Your task to perform on an android device: turn on data saver in the chrome app Image 0: 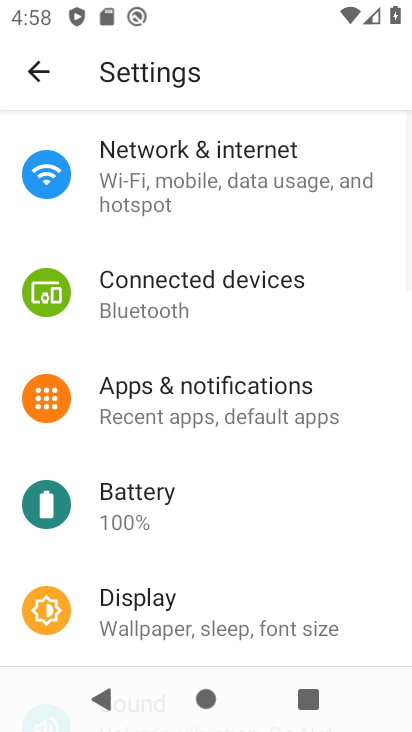
Step 0: press home button
Your task to perform on an android device: turn on data saver in the chrome app Image 1: 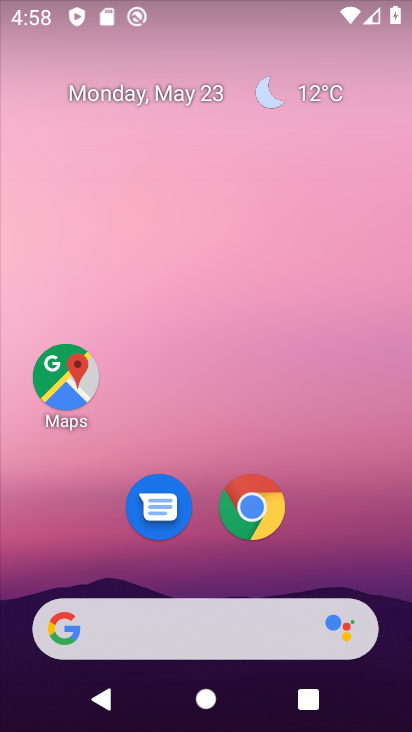
Step 1: drag from (136, 310) to (208, 167)
Your task to perform on an android device: turn on data saver in the chrome app Image 2: 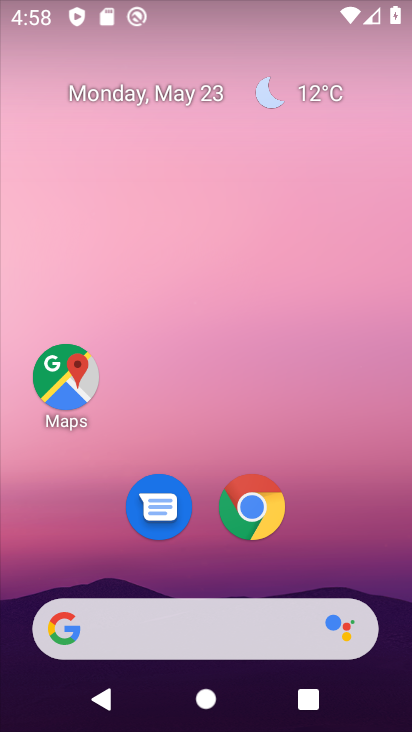
Step 2: click (251, 495)
Your task to perform on an android device: turn on data saver in the chrome app Image 3: 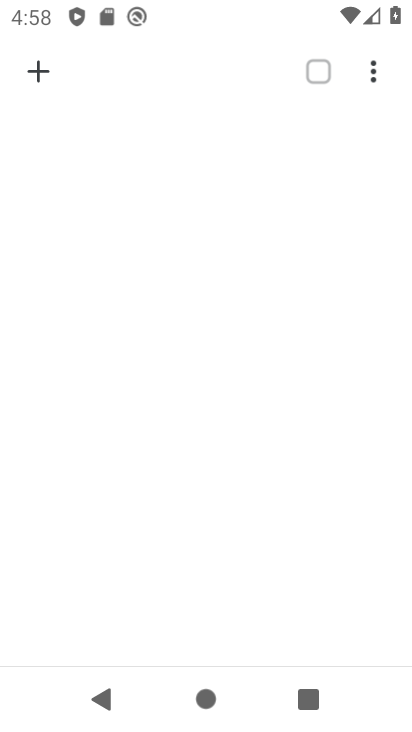
Step 3: click (371, 72)
Your task to perform on an android device: turn on data saver in the chrome app Image 4: 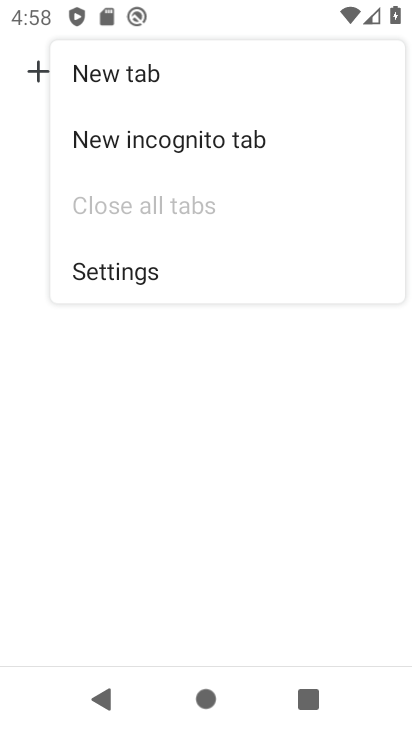
Step 4: press home button
Your task to perform on an android device: turn on data saver in the chrome app Image 5: 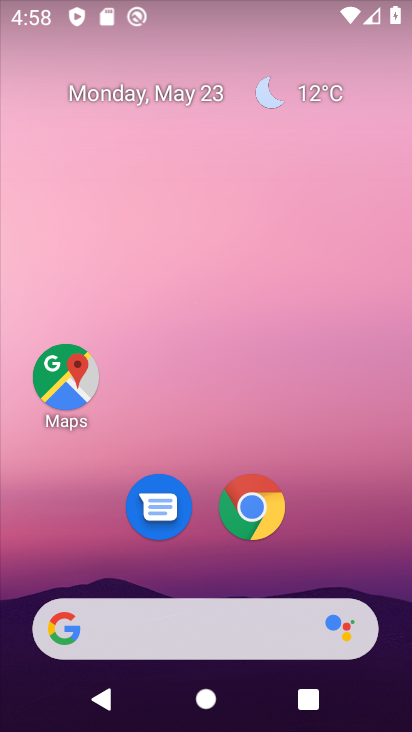
Step 5: click (262, 502)
Your task to perform on an android device: turn on data saver in the chrome app Image 6: 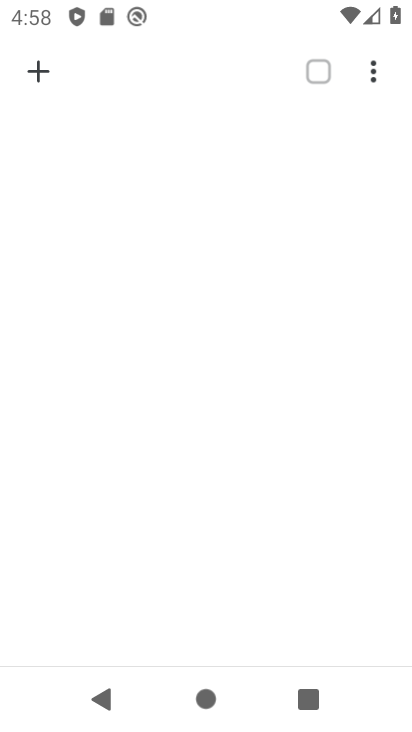
Step 6: click (370, 68)
Your task to perform on an android device: turn on data saver in the chrome app Image 7: 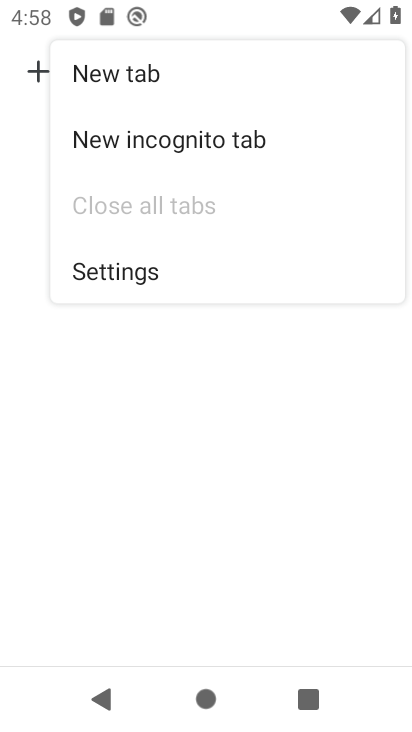
Step 7: click (91, 271)
Your task to perform on an android device: turn on data saver in the chrome app Image 8: 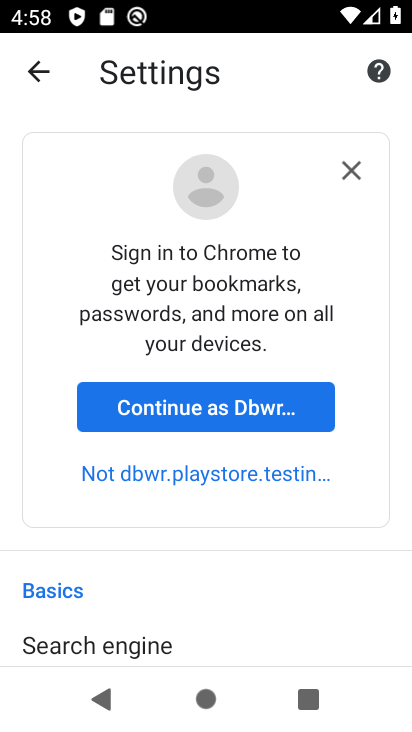
Step 8: click (357, 167)
Your task to perform on an android device: turn on data saver in the chrome app Image 9: 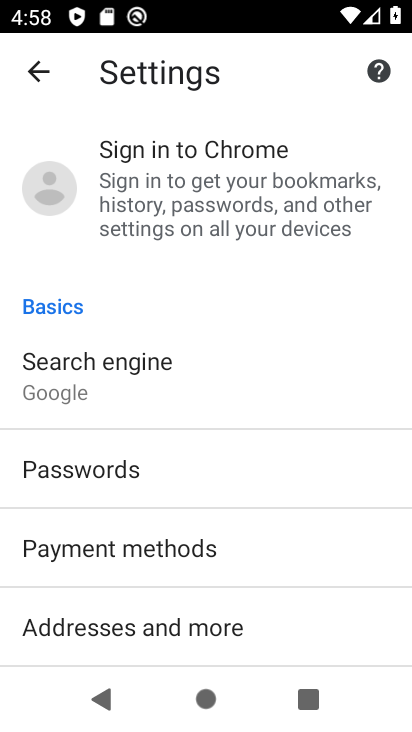
Step 9: drag from (21, 536) to (157, 200)
Your task to perform on an android device: turn on data saver in the chrome app Image 10: 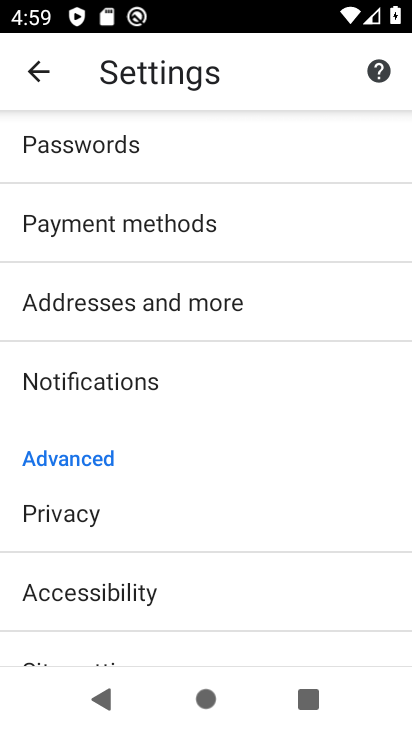
Step 10: drag from (227, 606) to (280, 269)
Your task to perform on an android device: turn on data saver in the chrome app Image 11: 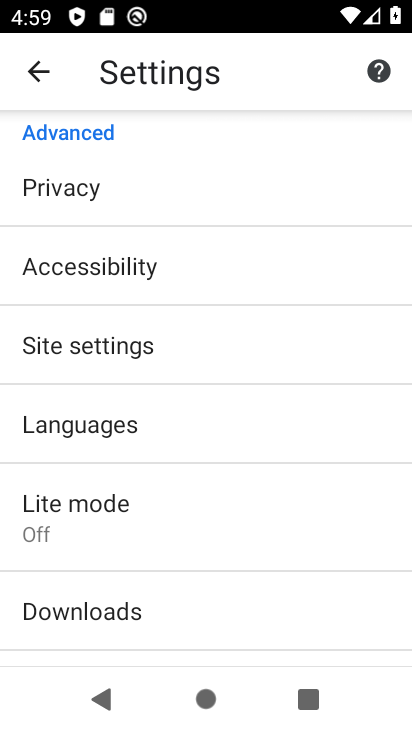
Step 11: click (224, 341)
Your task to perform on an android device: turn on data saver in the chrome app Image 12: 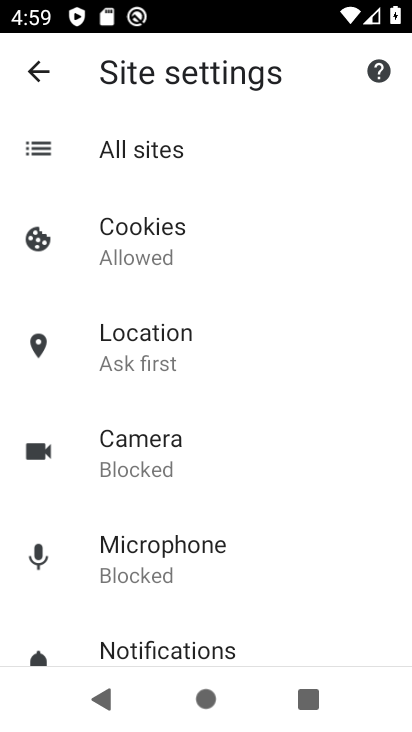
Step 12: press back button
Your task to perform on an android device: turn on data saver in the chrome app Image 13: 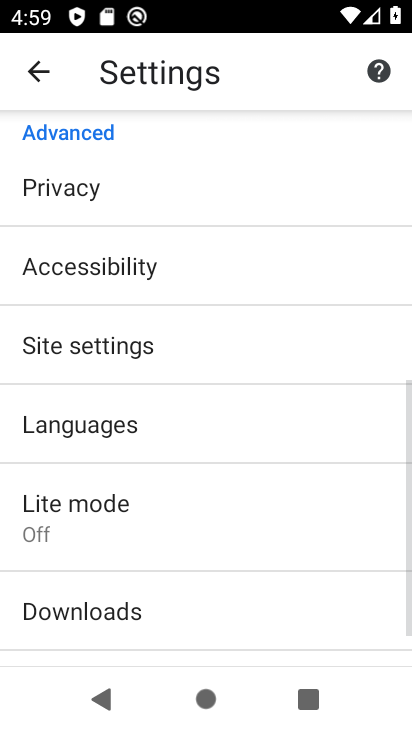
Step 13: click (57, 519)
Your task to perform on an android device: turn on data saver in the chrome app Image 14: 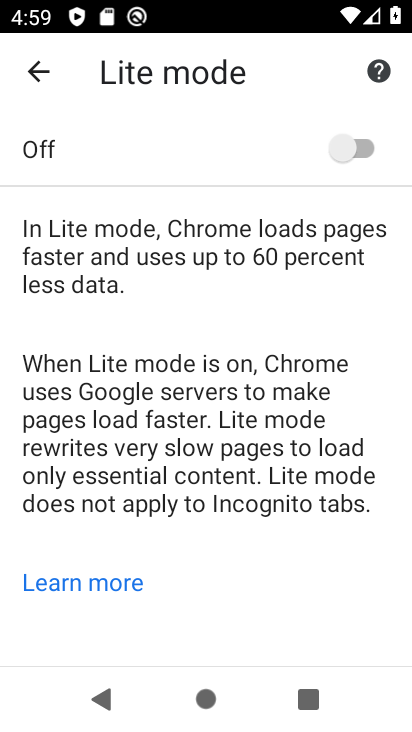
Step 14: click (348, 146)
Your task to perform on an android device: turn on data saver in the chrome app Image 15: 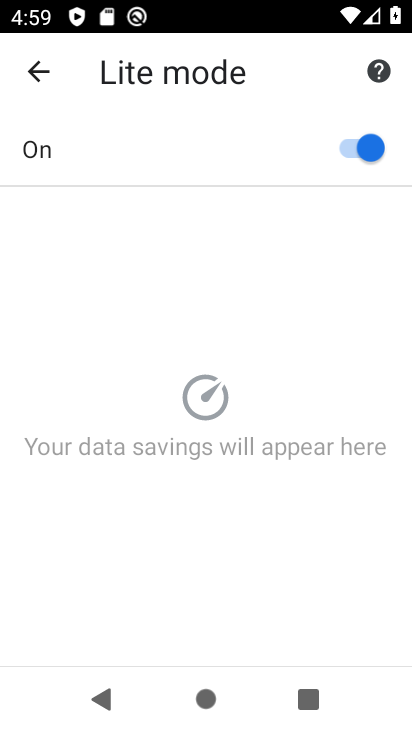
Step 15: task complete